Your task to perform on an android device: read, delete, or share a saved page in the chrome app Image 0: 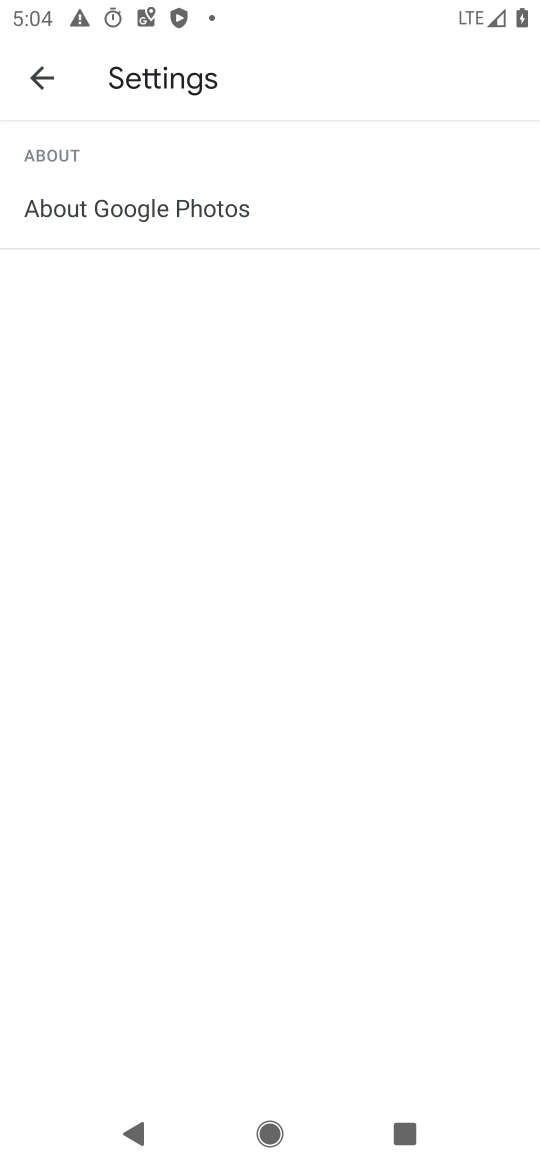
Step 0: press home button
Your task to perform on an android device: read, delete, or share a saved page in the chrome app Image 1: 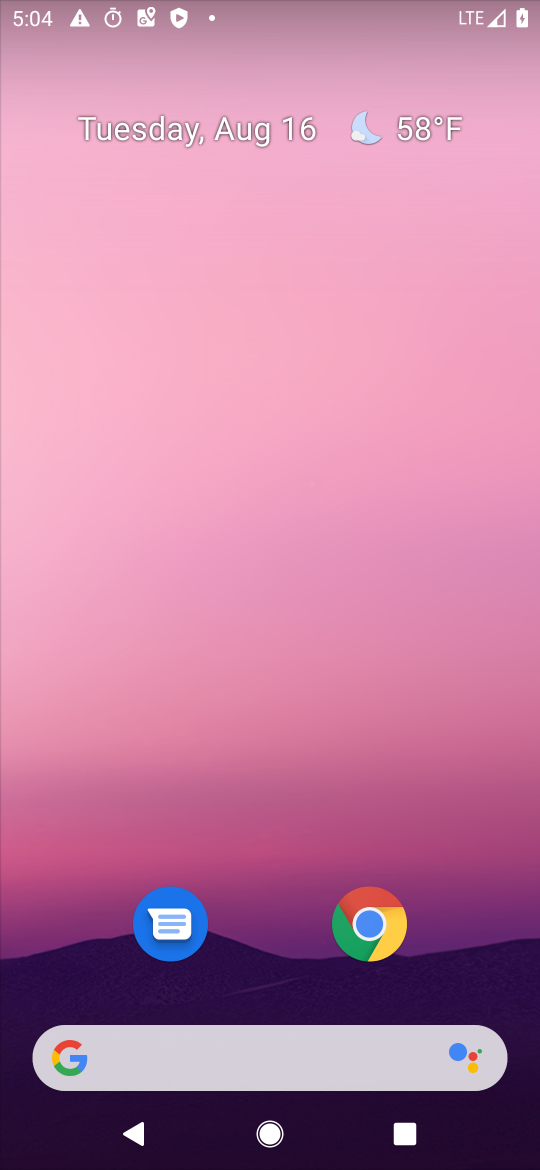
Step 1: click (379, 914)
Your task to perform on an android device: read, delete, or share a saved page in the chrome app Image 2: 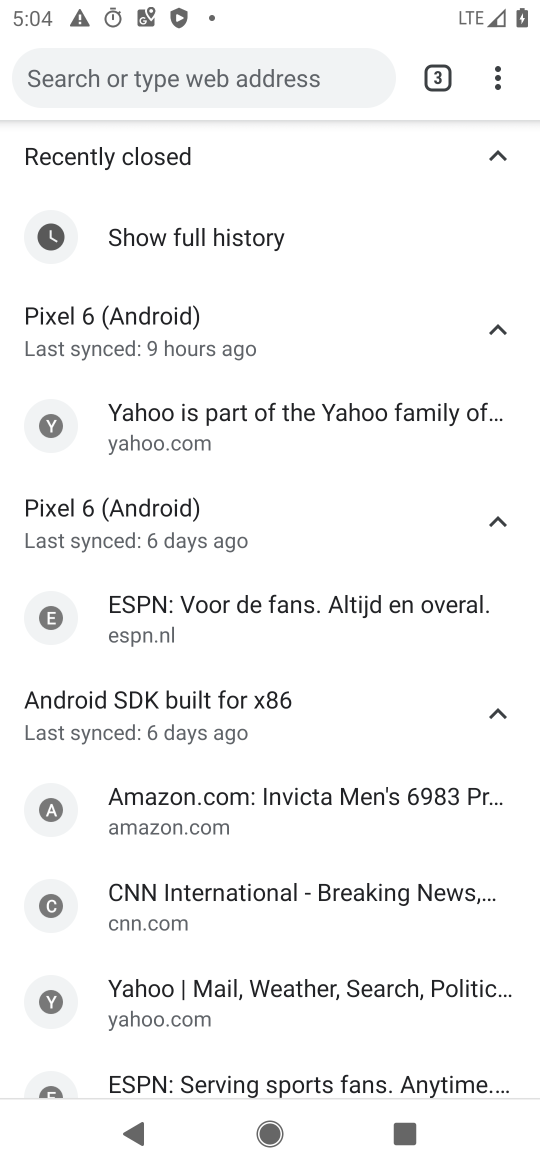
Step 2: click (497, 76)
Your task to perform on an android device: read, delete, or share a saved page in the chrome app Image 3: 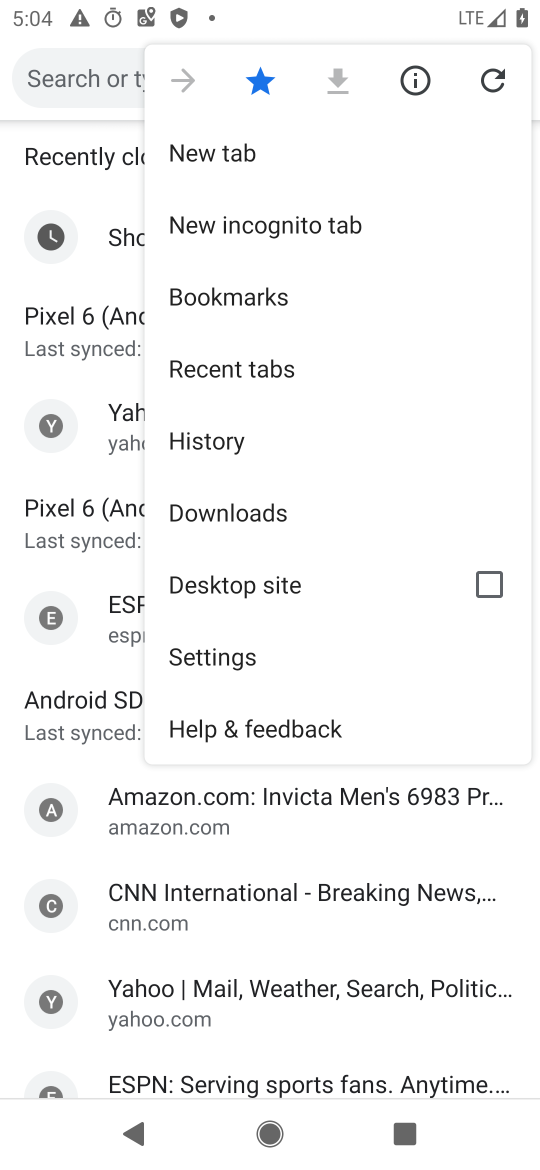
Step 3: click (199, 525)
Your task to perform on an android device: read, delete, or share a saved page in the chrome app Image 4: 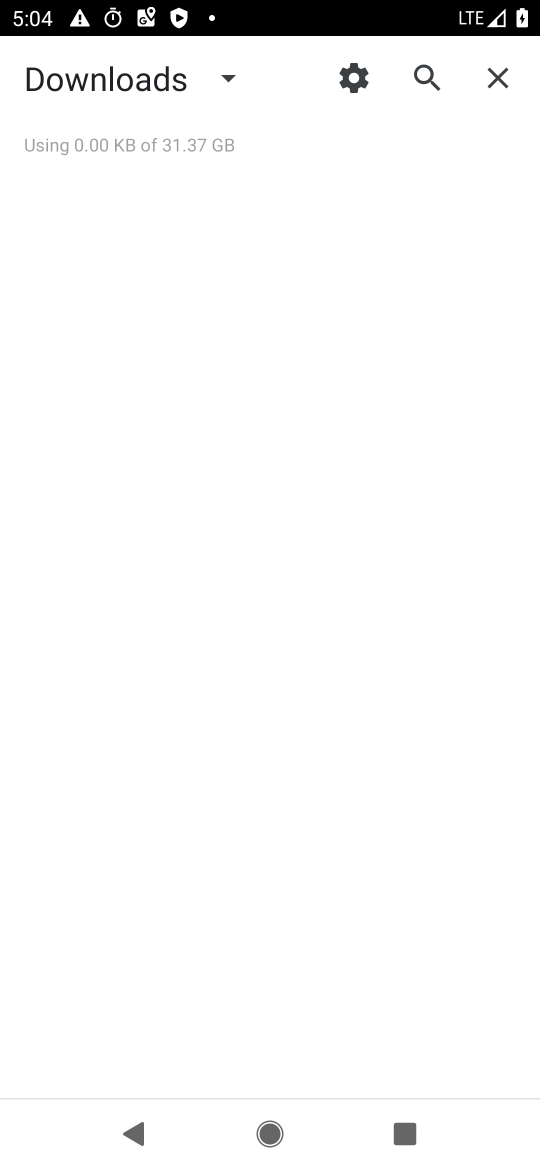
Step 4: task complete